Your task to perform on an android device: turn on javascript in the chrome app Image 0: 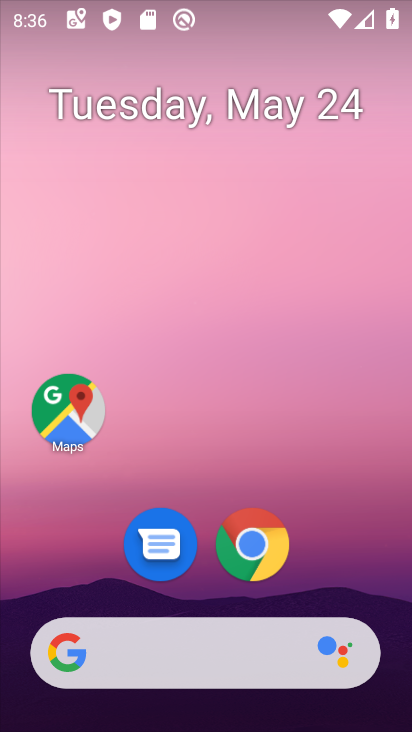
Step 0: drag from (382, 551) to (290, 23)
Your task to perform on an android device: turn on javascript in the chrome app Image 1: 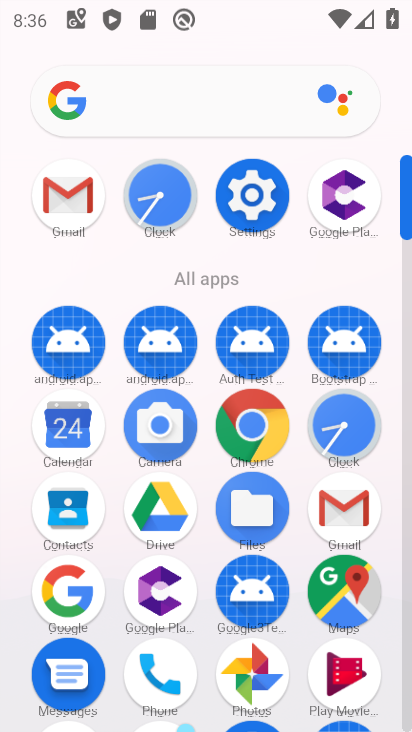
Step 1: click (265, 433)
Your task to perform on an android device: turn on javascript in the chrome app Image 2: 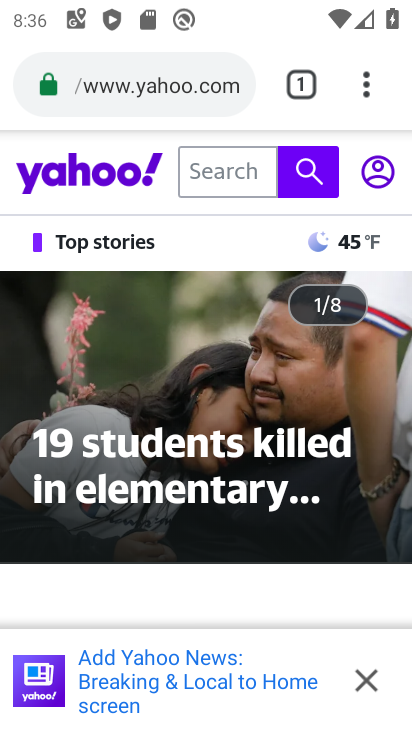
Step 2: click (370, 103)
Your task to perform on an android device: turn on javascript in the chrome app Image 3: 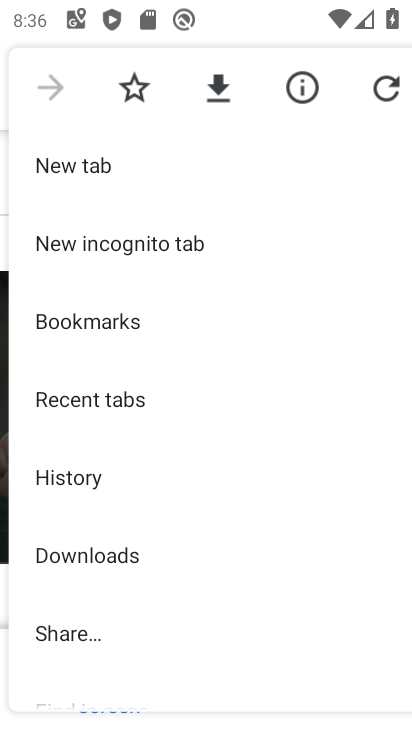
Step 3: drag from (260, 659) to (193, 283)
Your task to perform on an android device: turn on javascript in the chrome app Image 4: 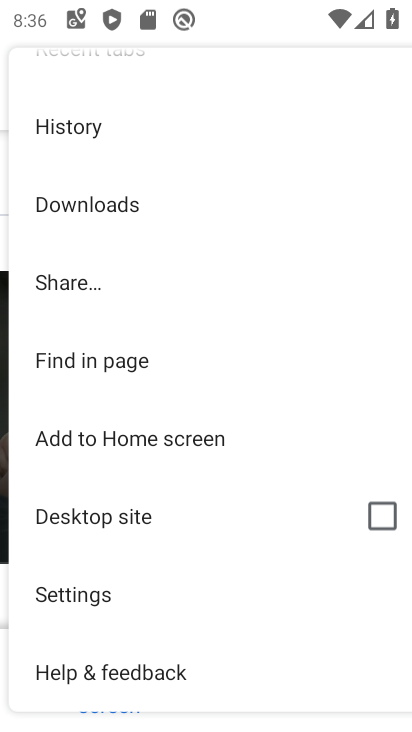
Step 4: click (172, 587)
Your task to perform on an android device: turn on javascript in the chrome app Image 5: 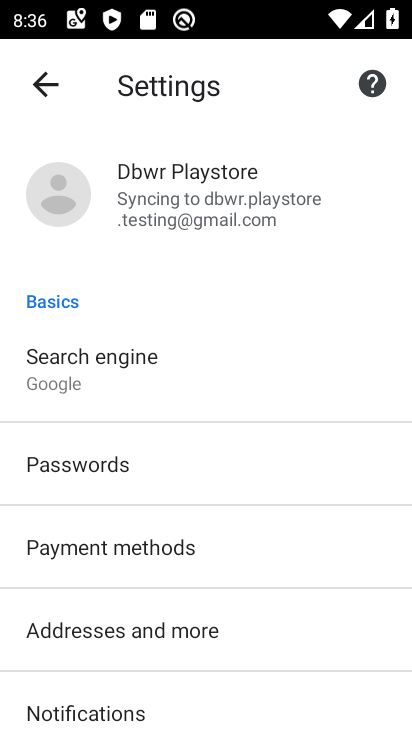
Step 5: drag from (201, 708) to (169, 338)
Your task to perform on an android device: turn on javascript in the chrome app Image 6: 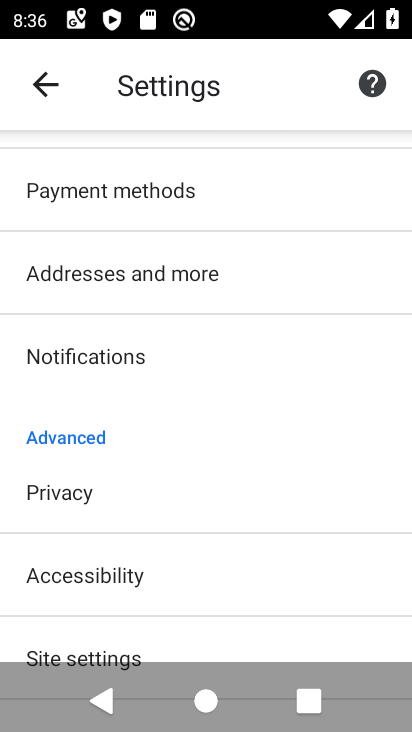
Step 6: drag from (182, 562) to (154, 247)
Your task to perform on an android device: turn on javascript in the chrome app Image 7: 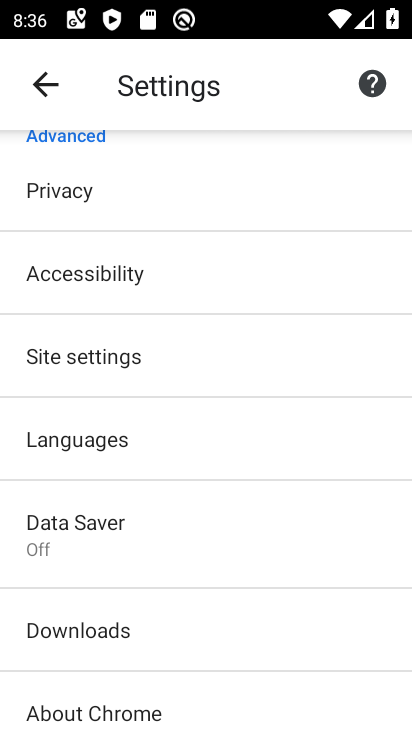
Step 7: click (121, 376)
Your task to perform on an android device: turn on javascript in the chrome app Image 8: 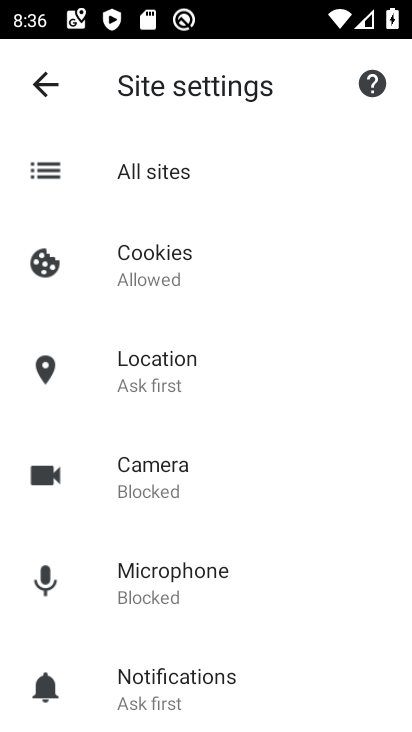
Step 8: drag from (222, 656) to (174, 275)
Your task to perform on an android device: turn on javascript in the chrome app Image 9: 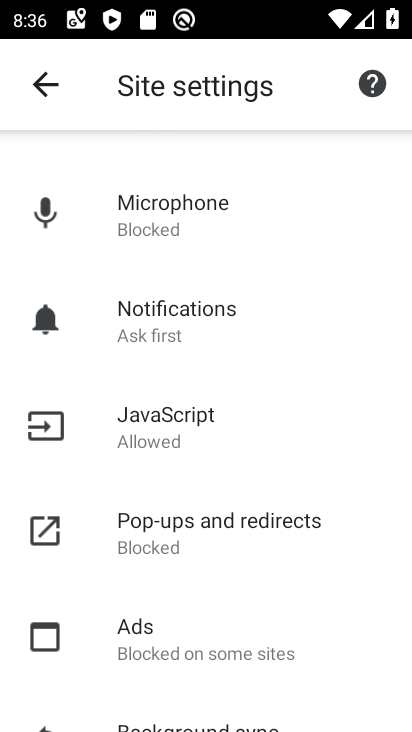
Step 9: click (191, 412)
Your task to perform on an android device: turn on javascript in the chrome app Image 10: 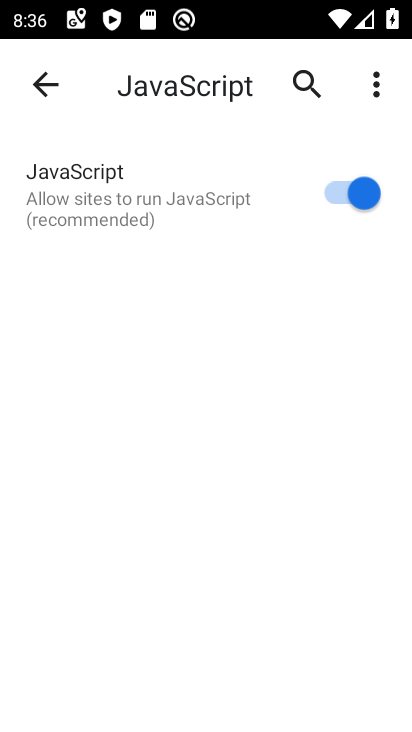
Step 10: task complete